Your task to perform on an android device: change text size in settings app Image 0: 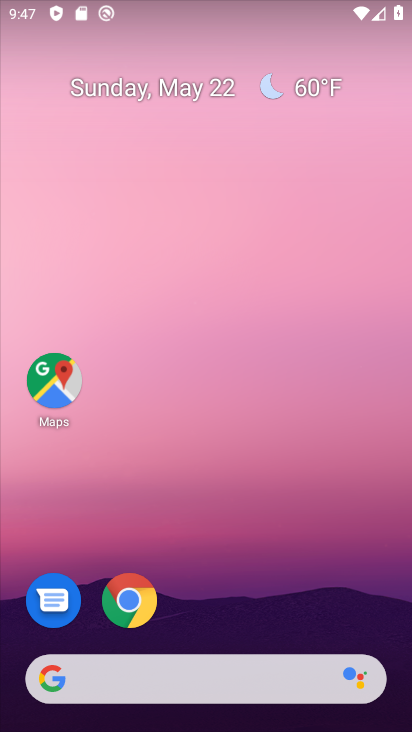
Step 0: drag from (241, 611) to (165, 43)
Your task to perform on an android device: change text size in settings app Image 1: 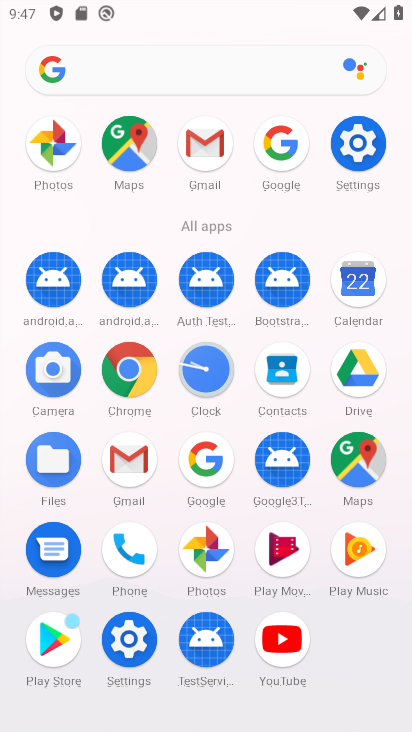
Step 1: click (358, 144)
Your task to perform on an android device: change text size in settings app Image 2: 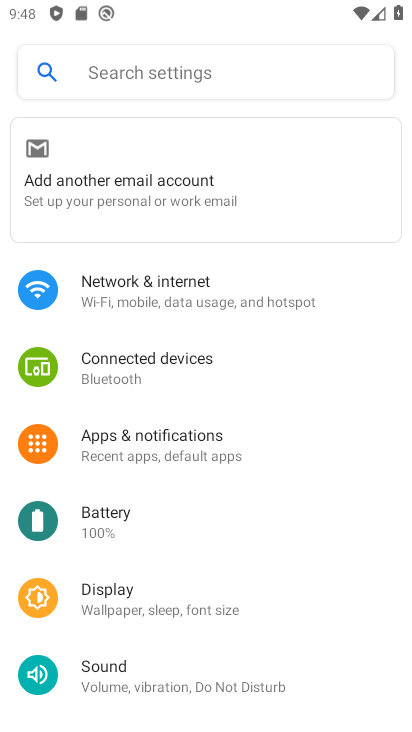
Step 2: drag from (147, 536) to (196, 434)
Your task to perform on an android device: change text size in settings app Image 3: 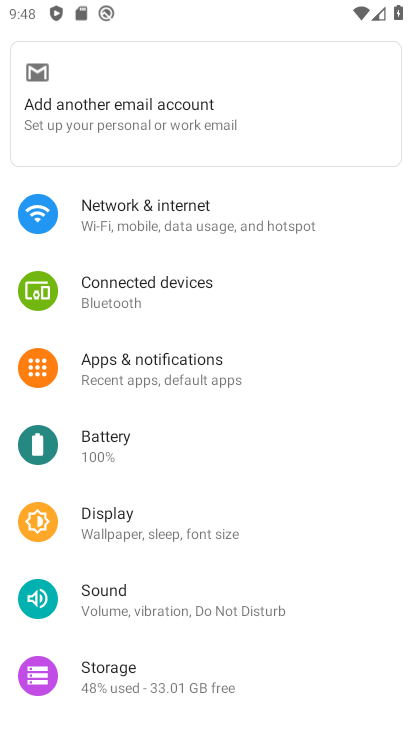
Step 3: drag from (170, 569) to (221, 471)
Your task to perform on an android device: change text size in settings app Image 4: 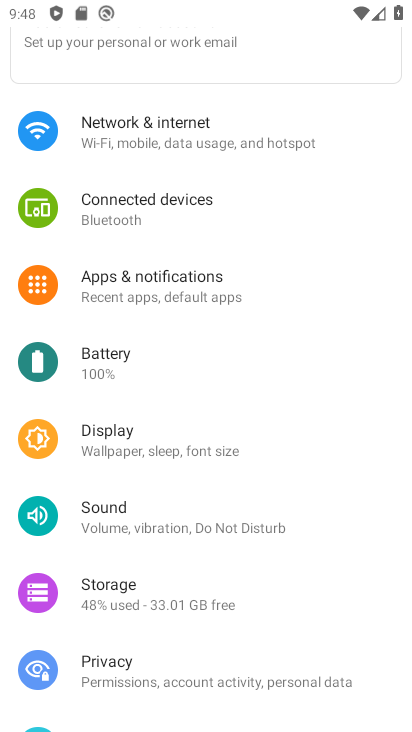
Step 4: drag from (142, 623) to (213, 510)
Your task to perform on an android device: change text size in settings app Image 5: 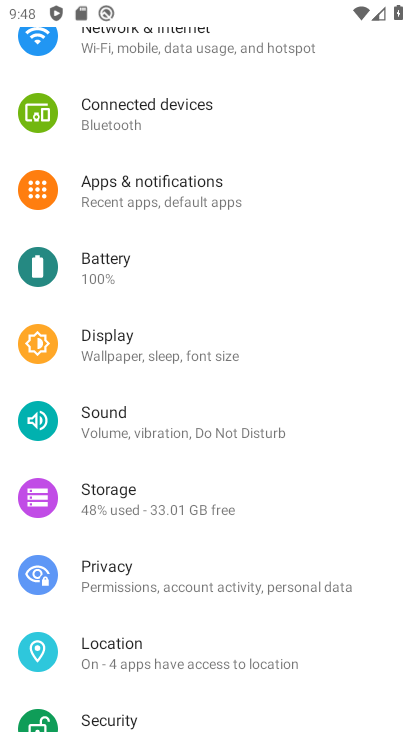
Step 5: drag from (121, 609) to (189, 511)
Your task to perform on an android device: change text size in settings app Image 6: 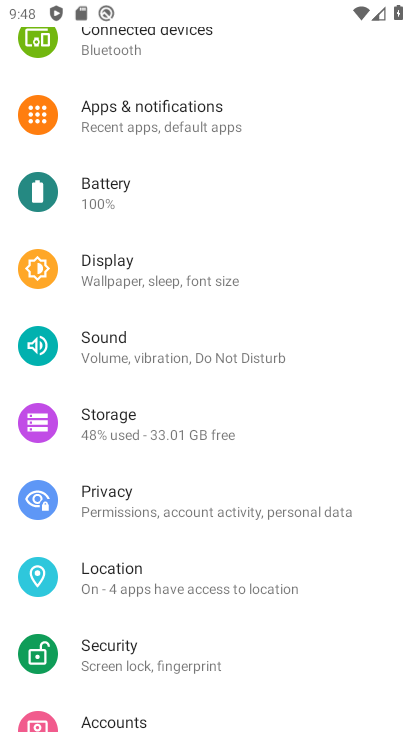
Step 6: drag from (120, 617) to (209, 492)
Your task to perform on an android device: change text size in settings app Image 7: 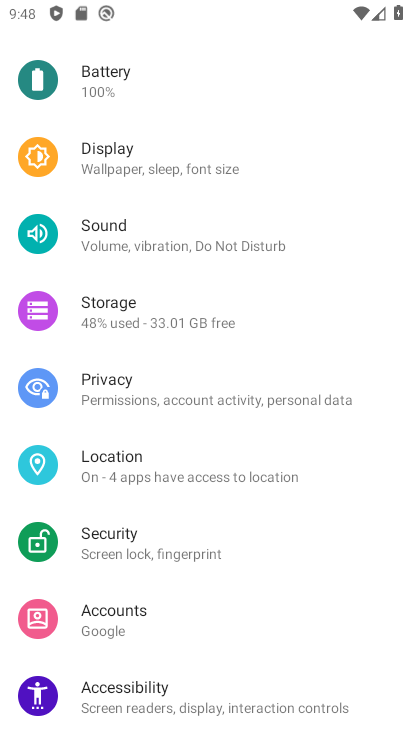
Step 7: drag from (109, 589) to (181, 482)
Your task to perform on an android device: change text size in settings app Image 8: 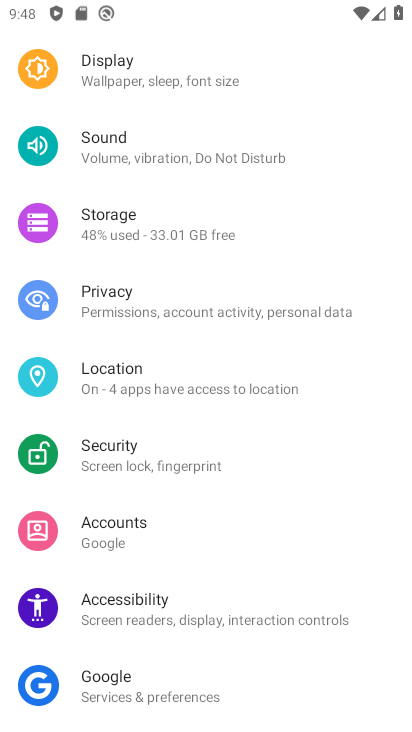
Step 8: click (123, 603)
Your task to perform on an android device: change text size in settings app Image 9: 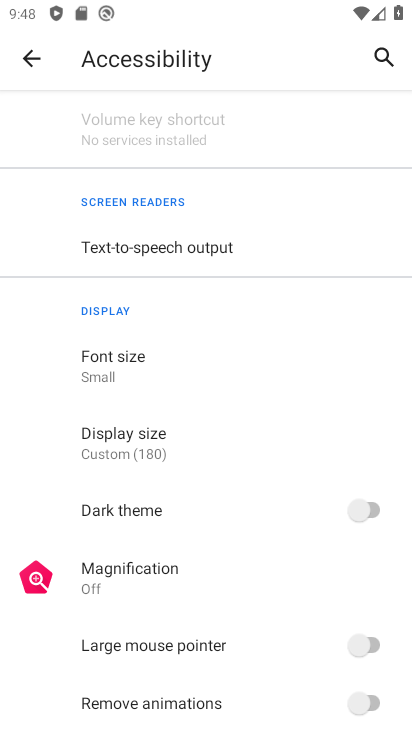
Step 9: click (102, 383)
Your task to perform on an android device: change text size in settings app Image 10: 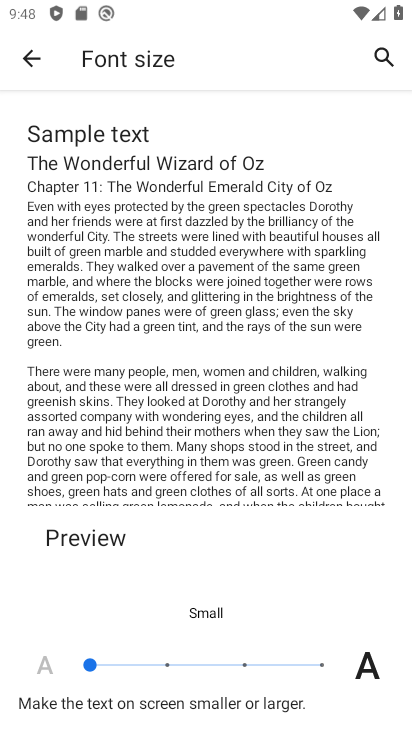
Step 10: click (163, 663)
Your task to perform on an android device: change text size in settings app Image 11: 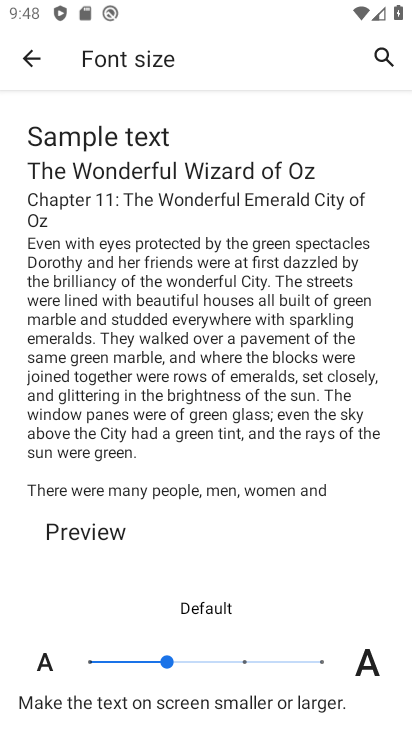
Step 11: task complete